Your task to perform on an android device: turn notification dots on Image 0: 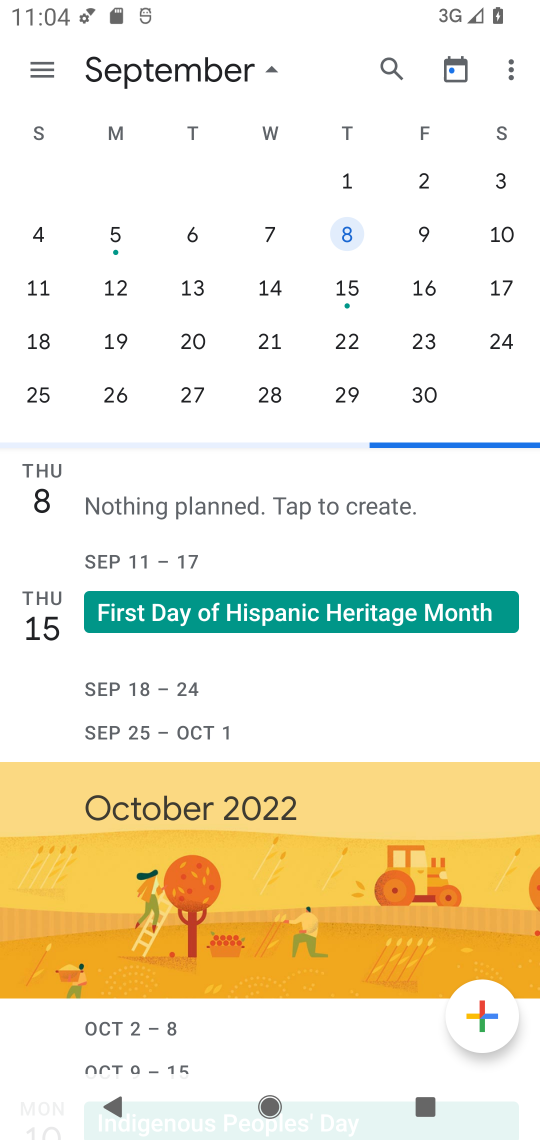
Step 0: press back button
Your task to perform on an android device: turn notification dots on Image 1: 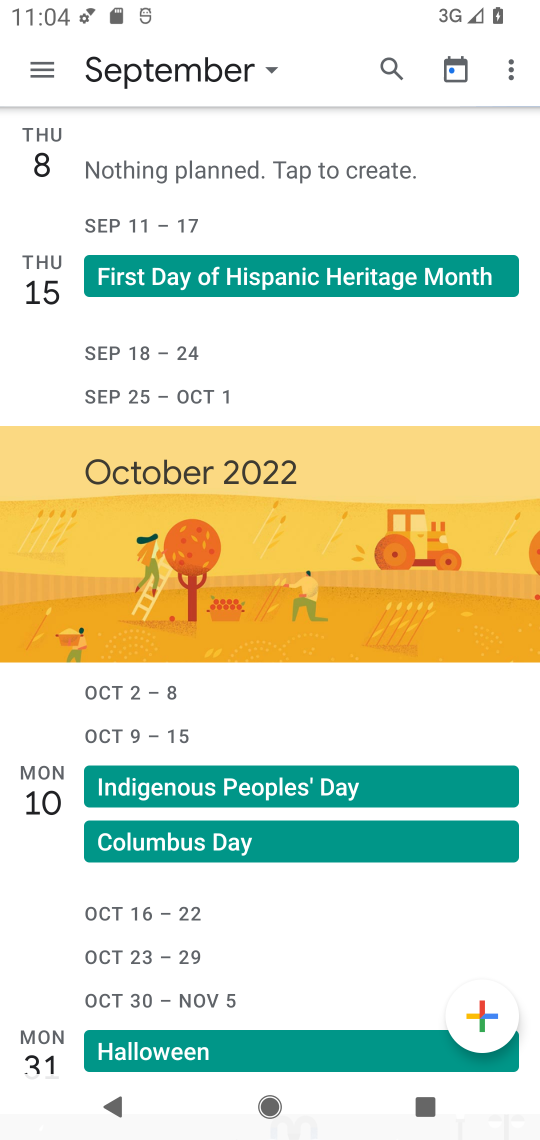
Step 1: press home button
Your task to perform on an android device: turn notification dots on Image 2: 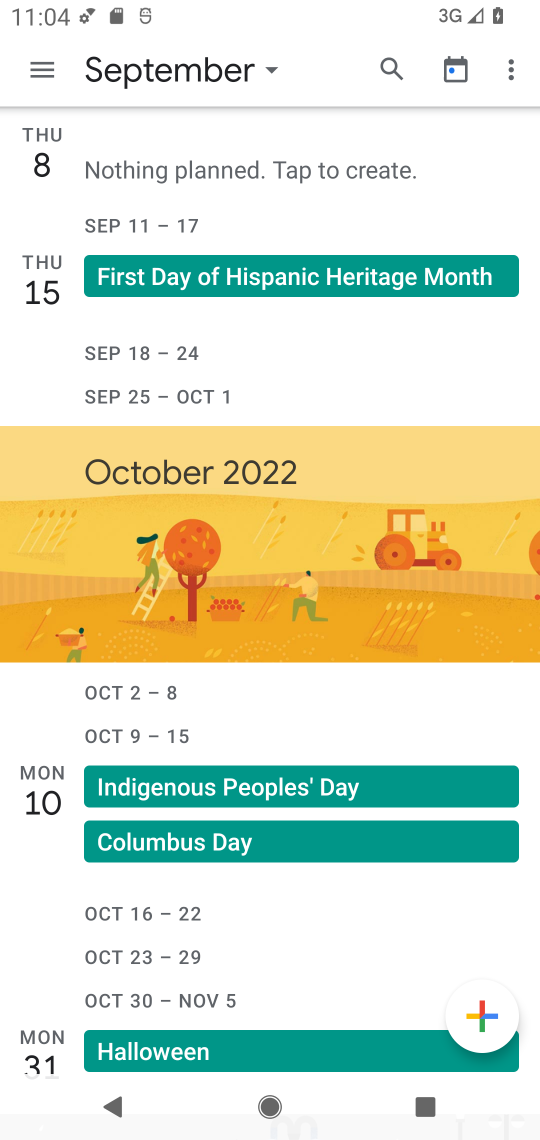
Step 2: press home button
Your task to perform on an android device: turn notification dots on Image 3: 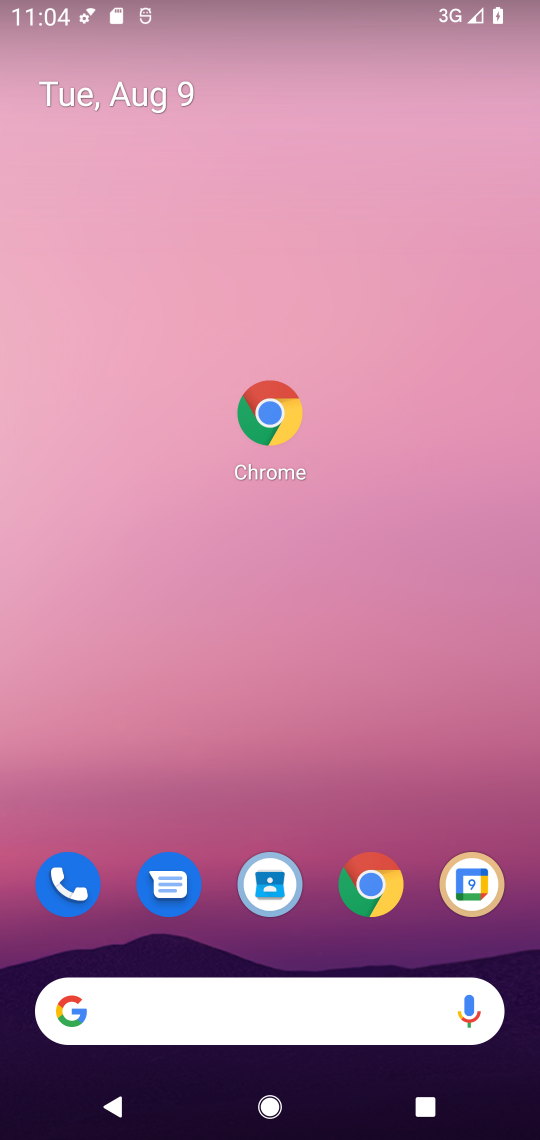
Step 3: drag from (209, 475) to (207, 374)
Your task to perform on an android device: turn notification dots on Image 4: 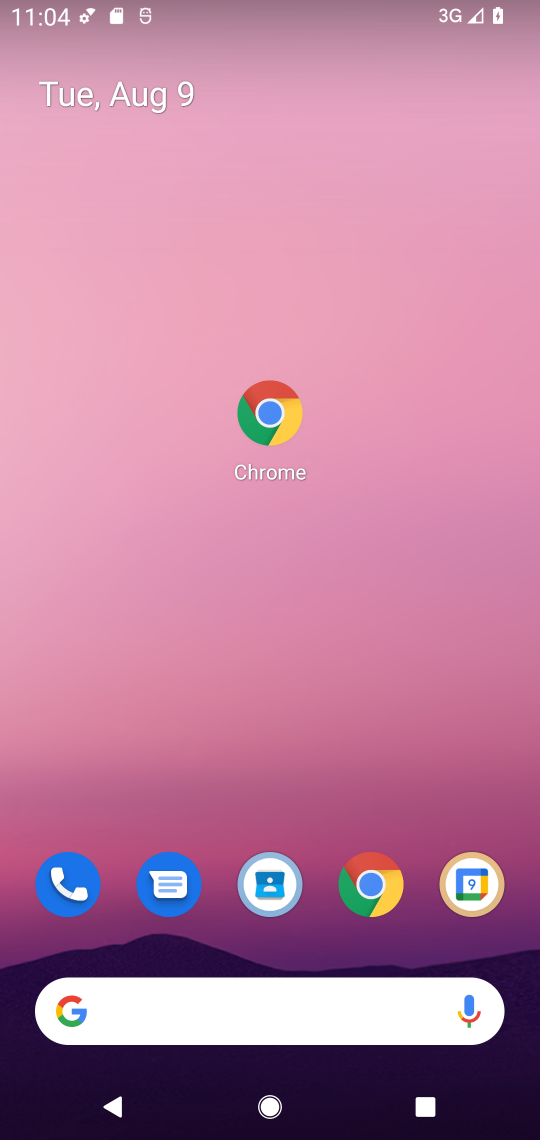
Step 4: click (264, 548)
Your task to perform on an android device: turn notification dots on Image 5: 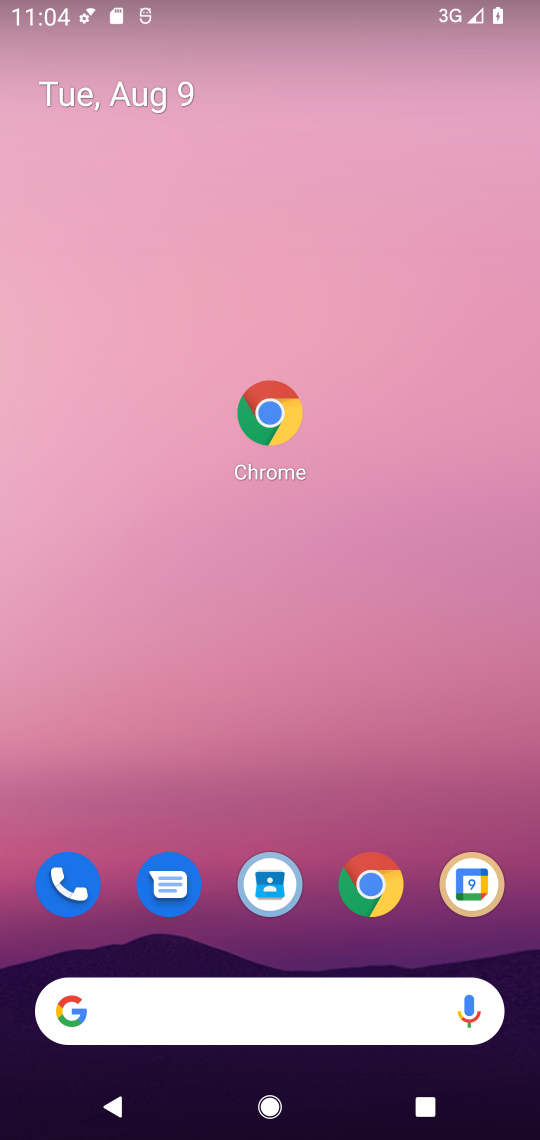
Step 5: drag from (296, 737) to (296, 332)
Your task to perform on an android device: turn notification dots on Image 6: 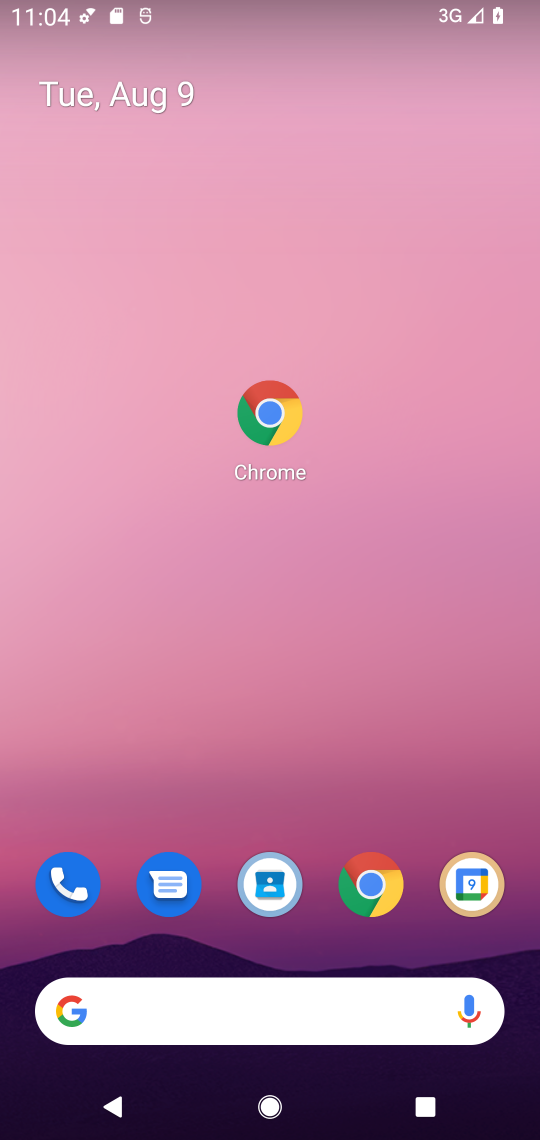
Step 6: click (288, 544)
Your task to perform on an android device: turn notification dots on Image 7: 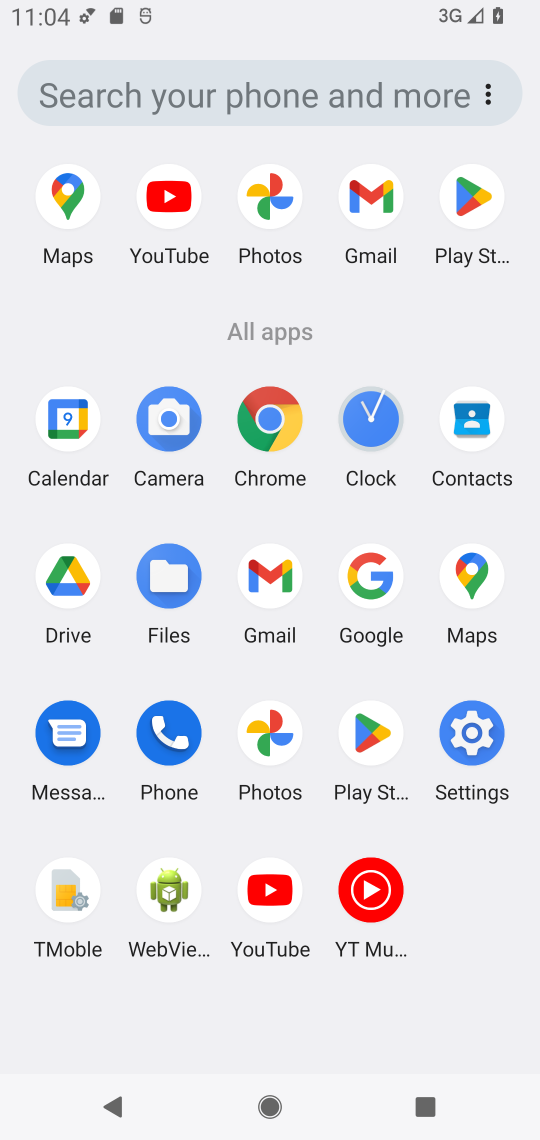
Step 7: drag from (350, 635) to (350, 571)
Your task to perform on an android device: turn notification dots on Image 8: 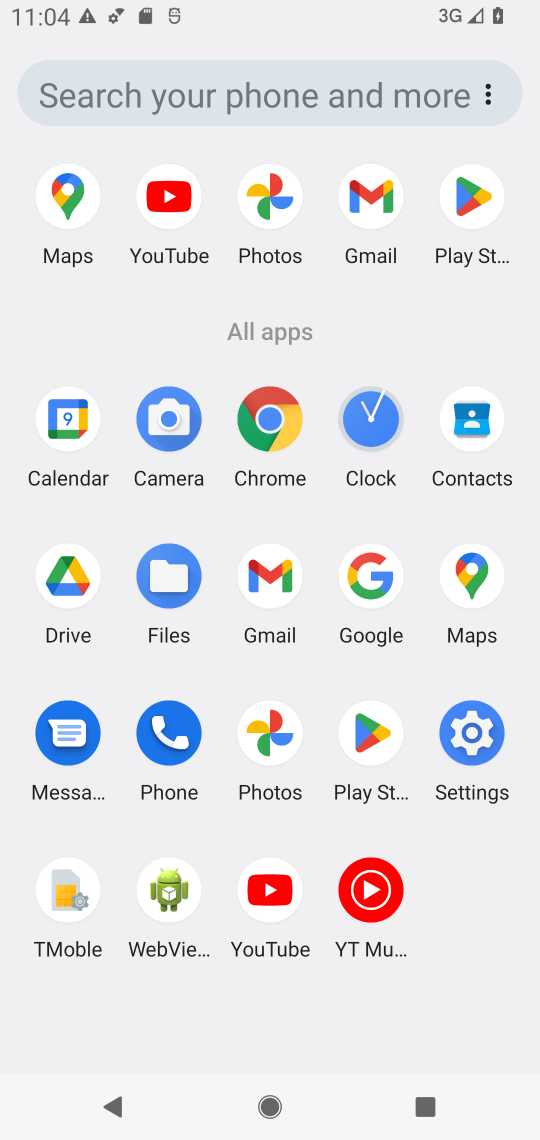
Step 8: click (461, 728)
Your task to perform on an android device: turn notification dots on Image 9: 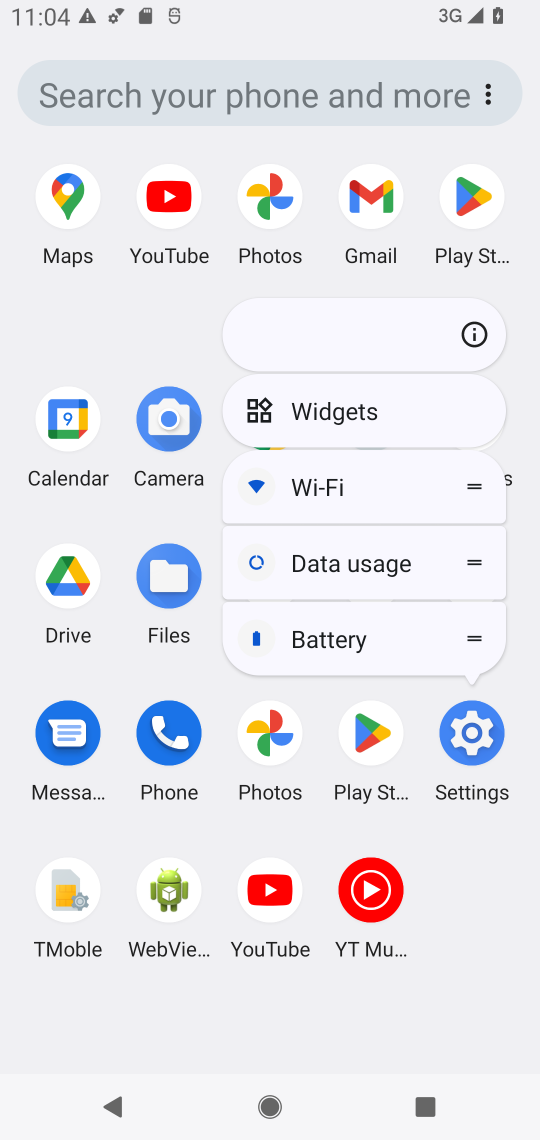
Step 9: click (486, 728)
Your task to perform on an android device: turn notification dots on Image 10: 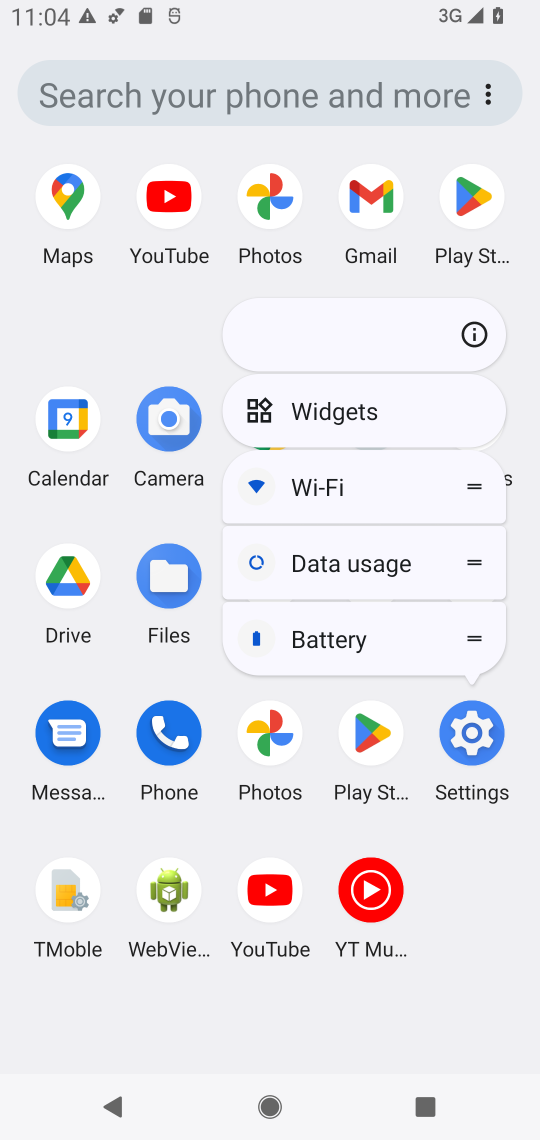
Step 10: click (486, 732)
Your task to perform on an android device: turn notification dots on Image 11: 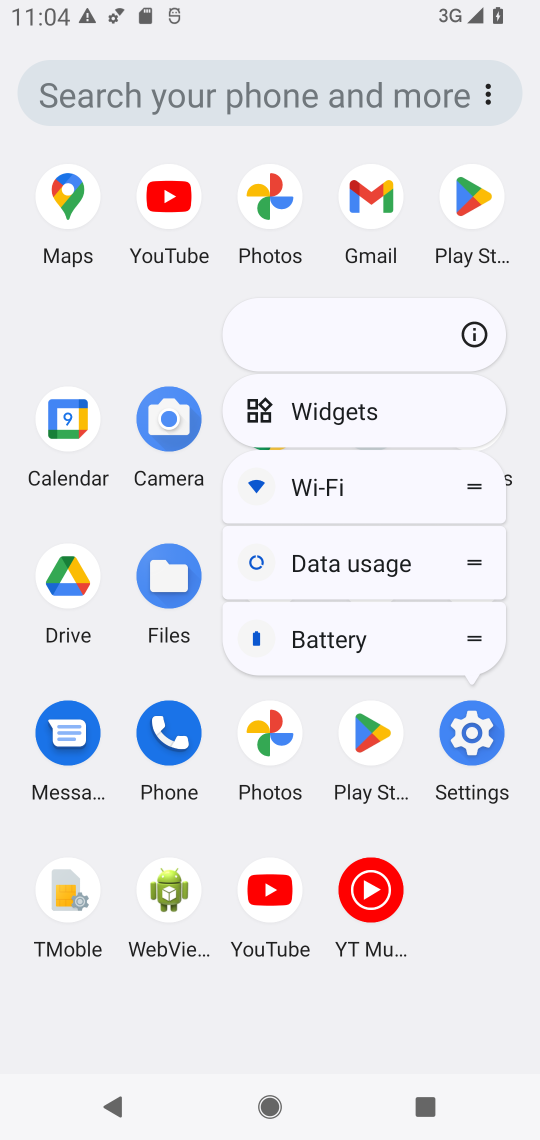
Step 11: click (490, 732)
Your task to perform on an android device: turn notification dots on Image 12: 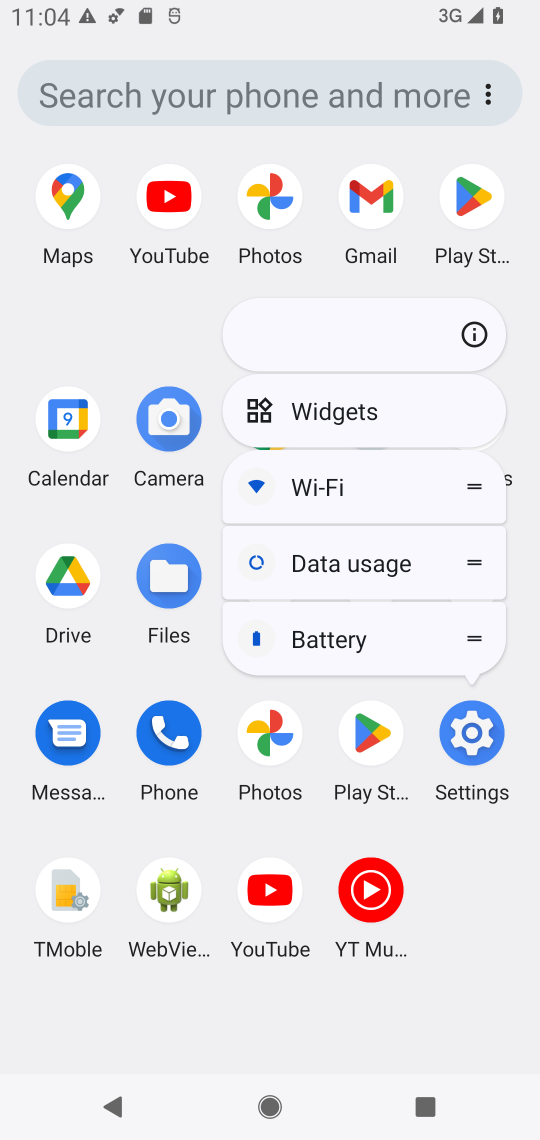
Step 12: click (459, 735)
Your task to perform on an android device: turn notification dots on Image 13: 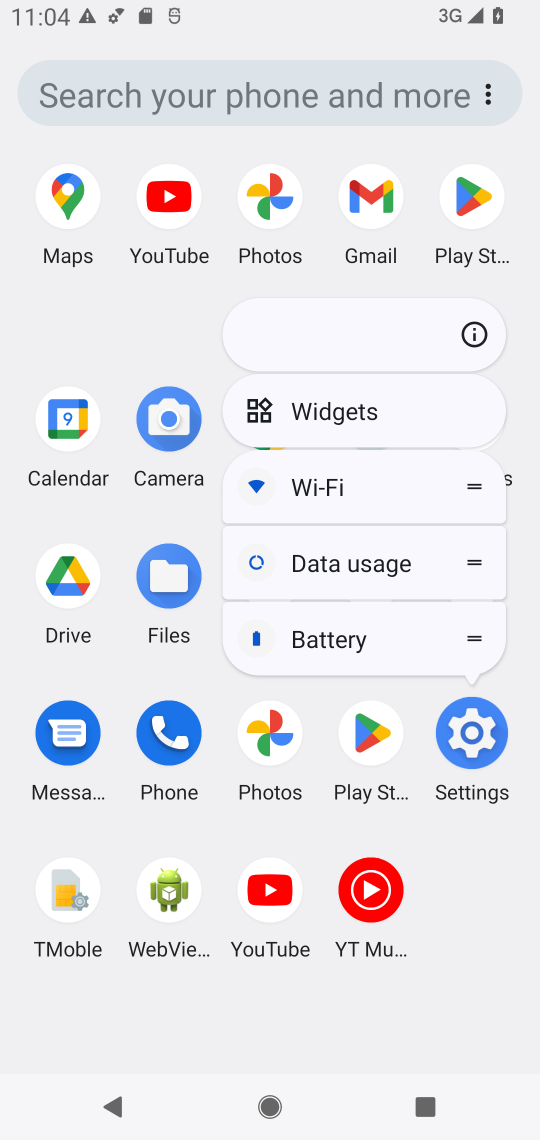
Step 13: click (474, 731)
Your task to perform on an android device: turn notification dots on Image 14: 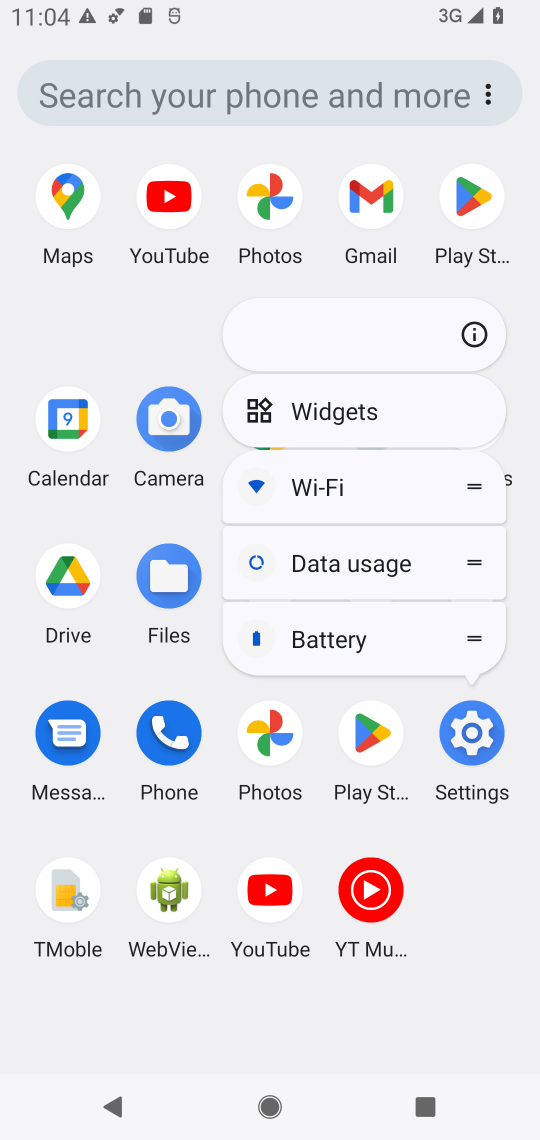
Step 14: click (471, 735)
Your task to perform on an android device: turn notification dots on Image 15: 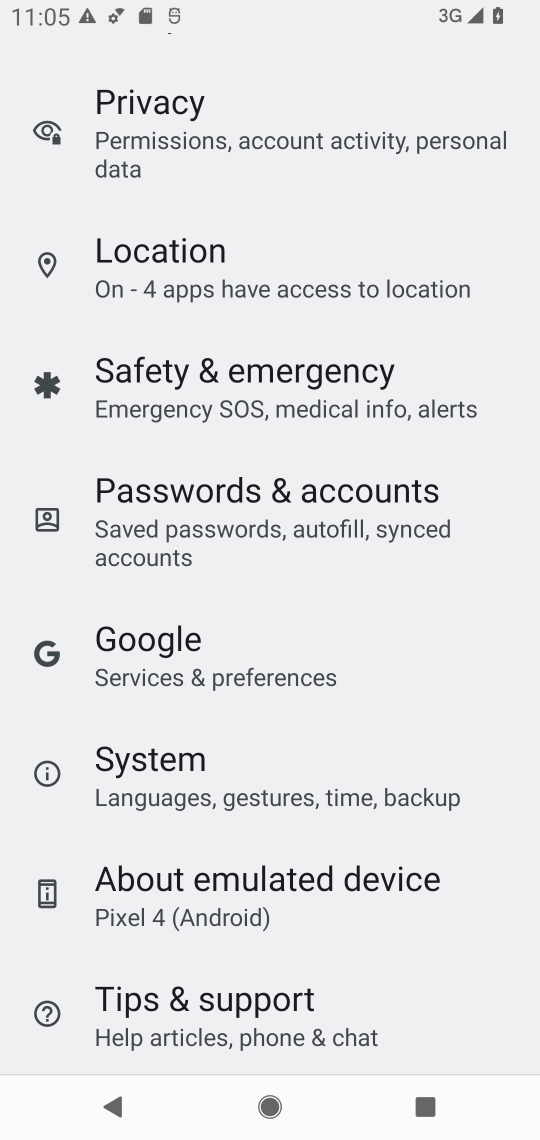
Step 15: drag from (260, 634) to (234, 473)
Your task to perform on an android device: turn notification dots on Image 16: 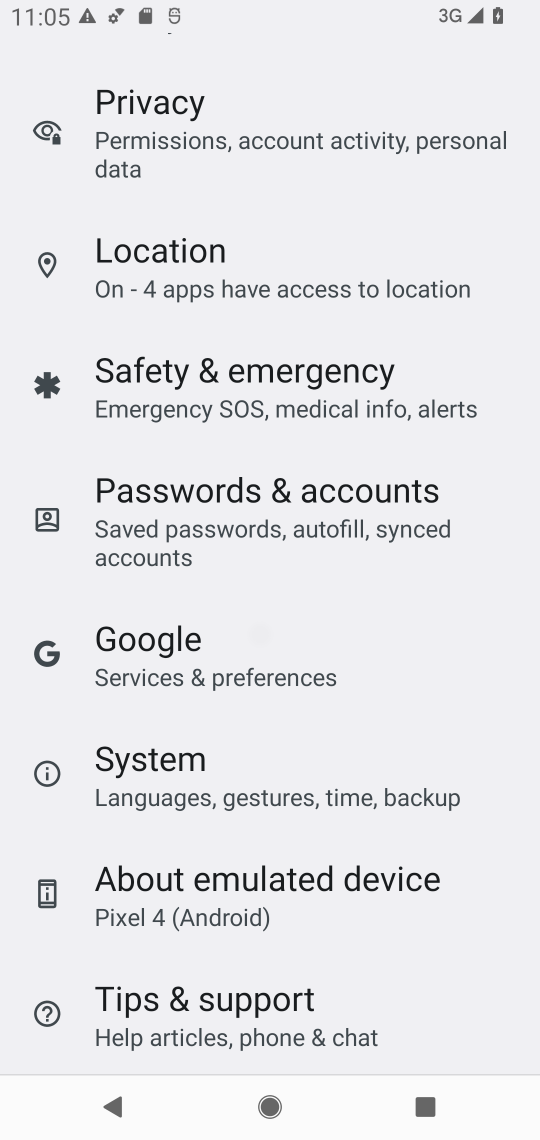
Step 16: drag from (310, 857) to (255, 322)
Your task to perform on an android device: turn notification dots on Image 17: 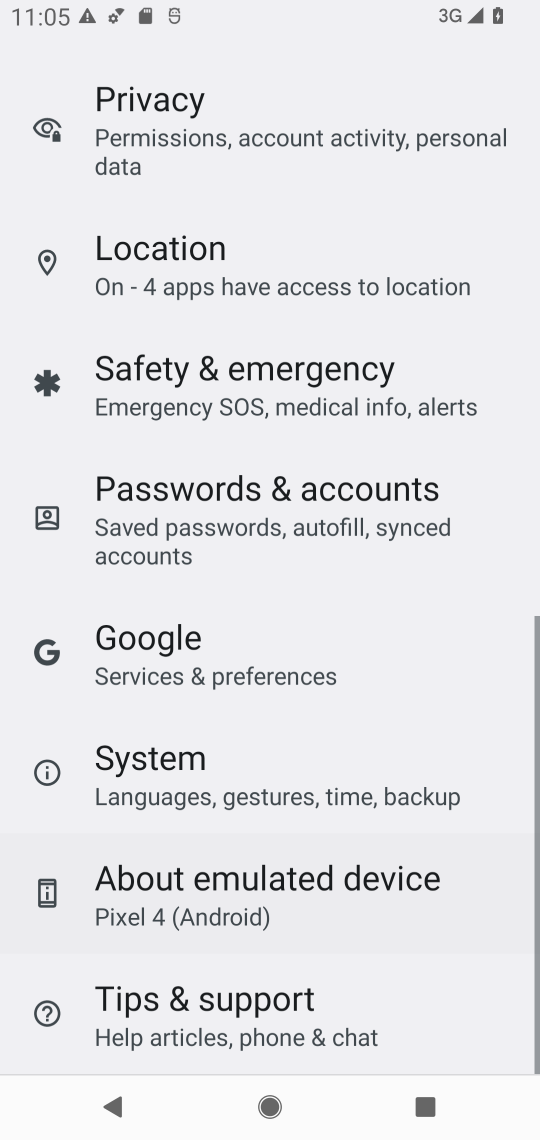
Step 17: drag from (228, 632) to (242, 387)
Your task to perform on an android device: turn notification dots on Image 18: 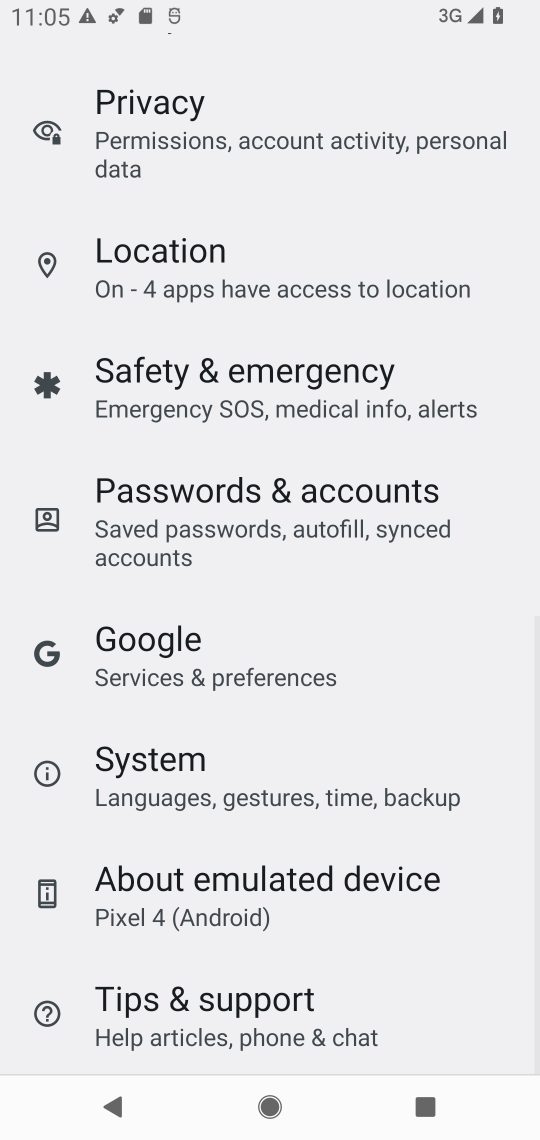
Step 18: drag from (301, 920) to (334, 380)
Your task to perform on an android device: turn notification dots on Image 19: 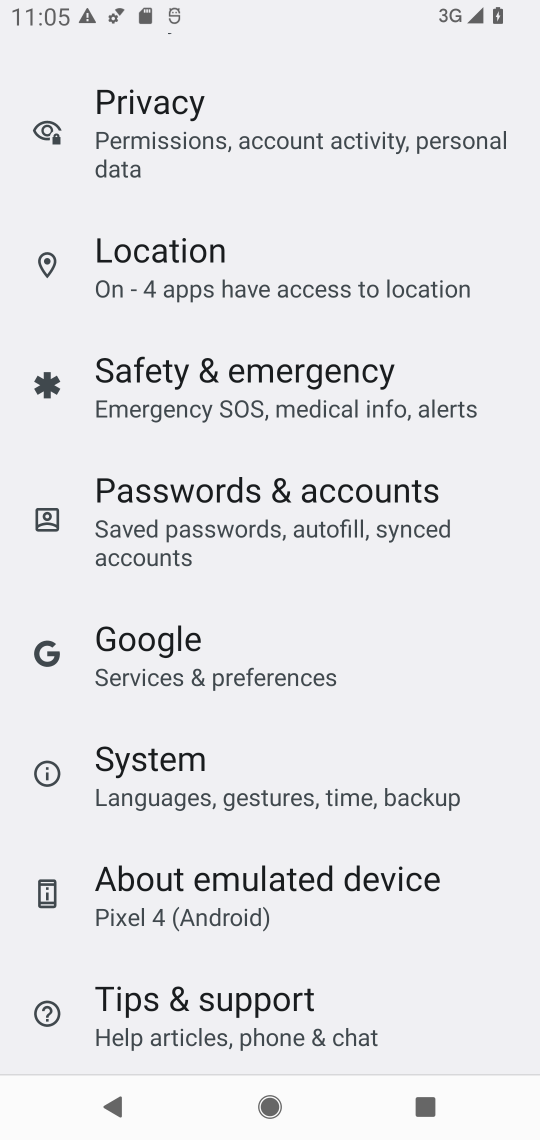
Step 19: drag from (189, 346) to (195, 862)
Your task to perform on an android device: turn notification dots on Image 20: 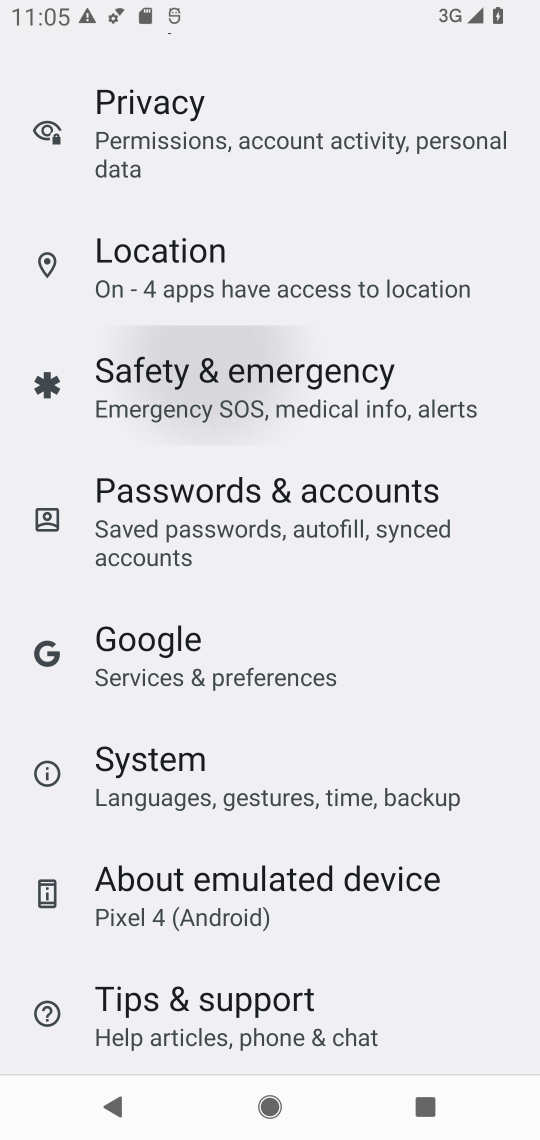
Step 20: drag from (251, 401) to (250, 780)
Your task to perform on an android device: turn notification dots on Image 21: 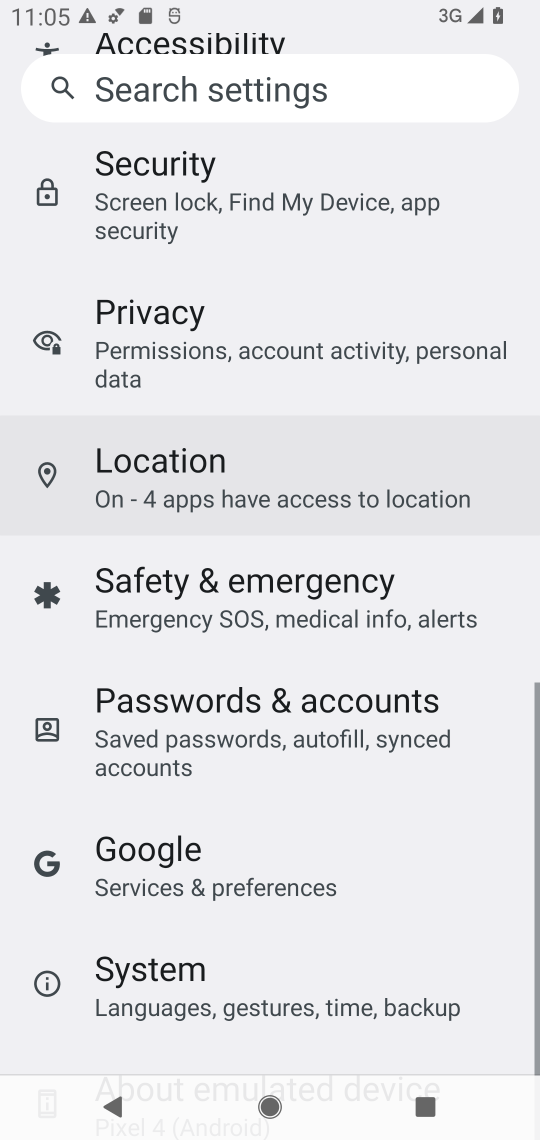
Step 21: drag from (224, 337) to (220, 770)
Your task to perform on an android device: turn notification dots on Image 22: 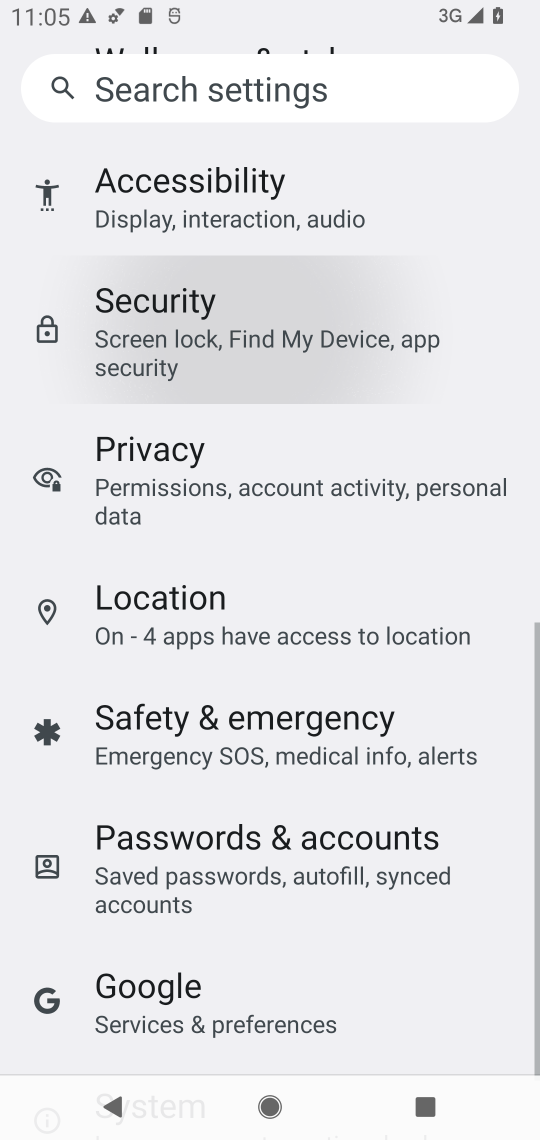
Step 22: drag from (234, 341) to (241, 783)
Your task to perform on an android device: turn notification dots on Image 23: 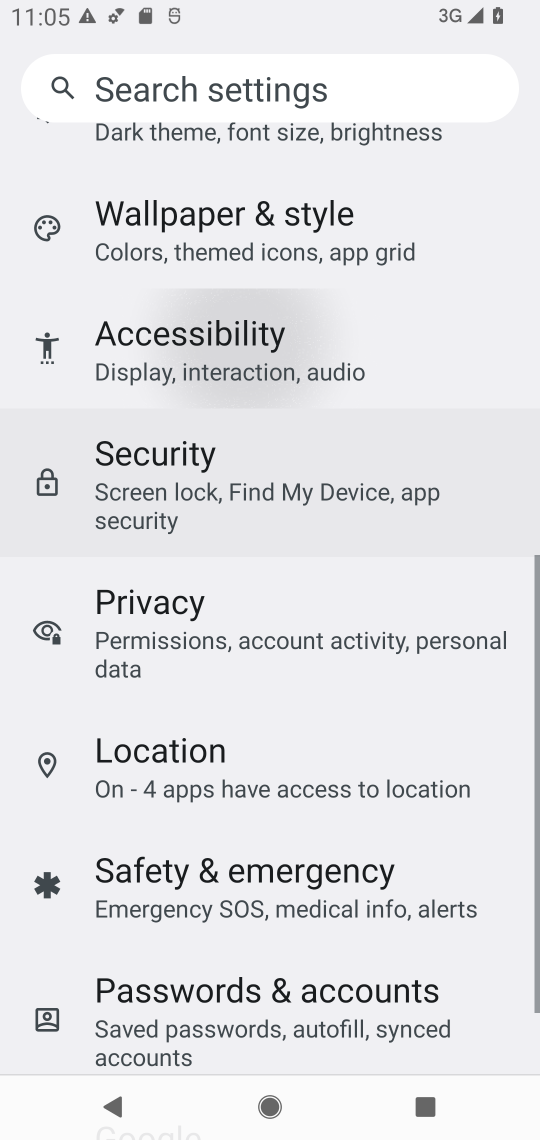
Step 23: drag from (177, 335) to (172, 704)
Your task to perform on an android device: turn notification dots on Image 24: 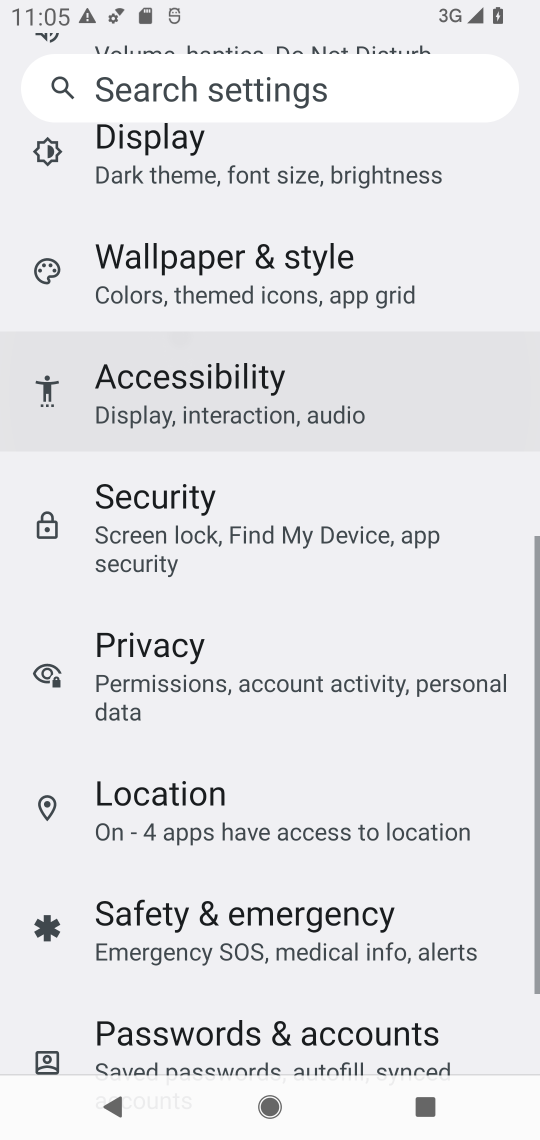
Step 24: drag from (149, 418) to (168, 828)
Your task to perform on an android device: turn notification dots on Image 25: 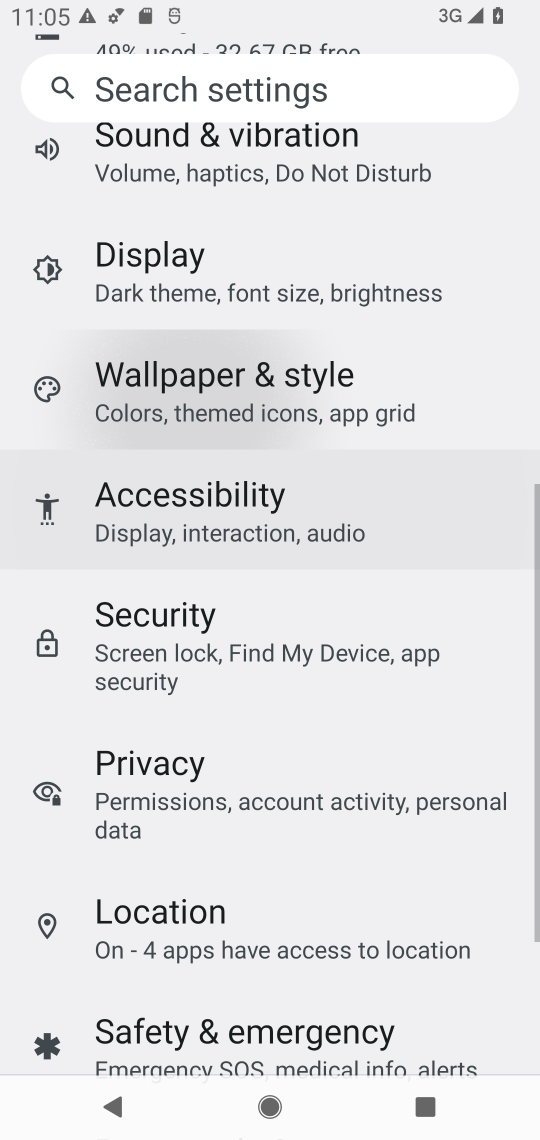
Step 25: drag from (188, 677) to (213, 873)
Your task to perform on an android device: turn notification dots on Image 26: 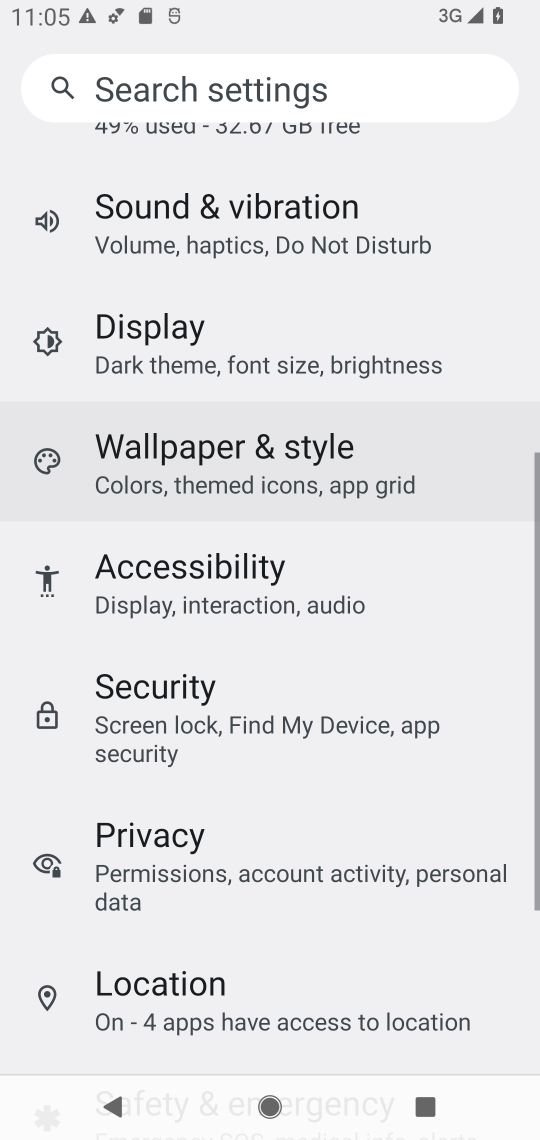
Step 26: drag from (215, 508) to (260, 824)
Your task to perform on an android device: turn notification dots on Image 27: 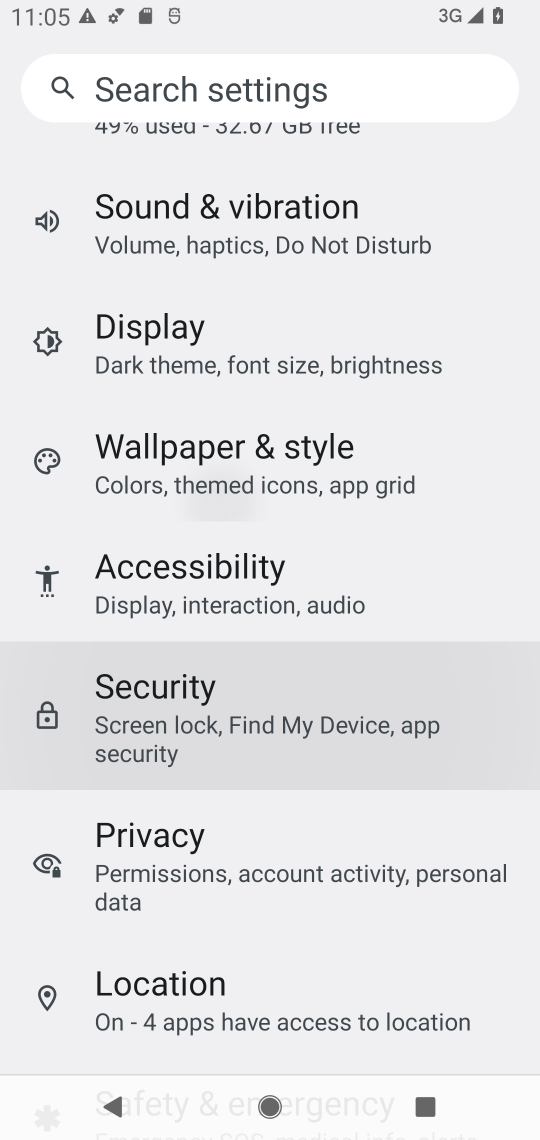
Step 27: drag from (356, 374) to (224, 984)
Your task to perform on an android device: turn notification dots on Image 28: 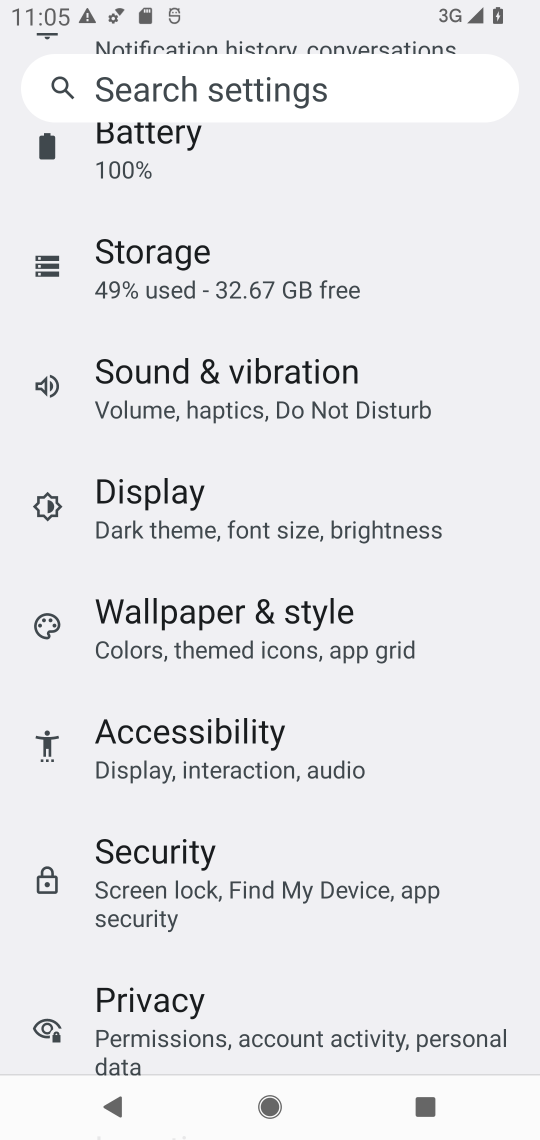
Step 28: drag from (227, 277) to (237, 699)
Your task to perform on an android device: turn notification dots on Image 29: 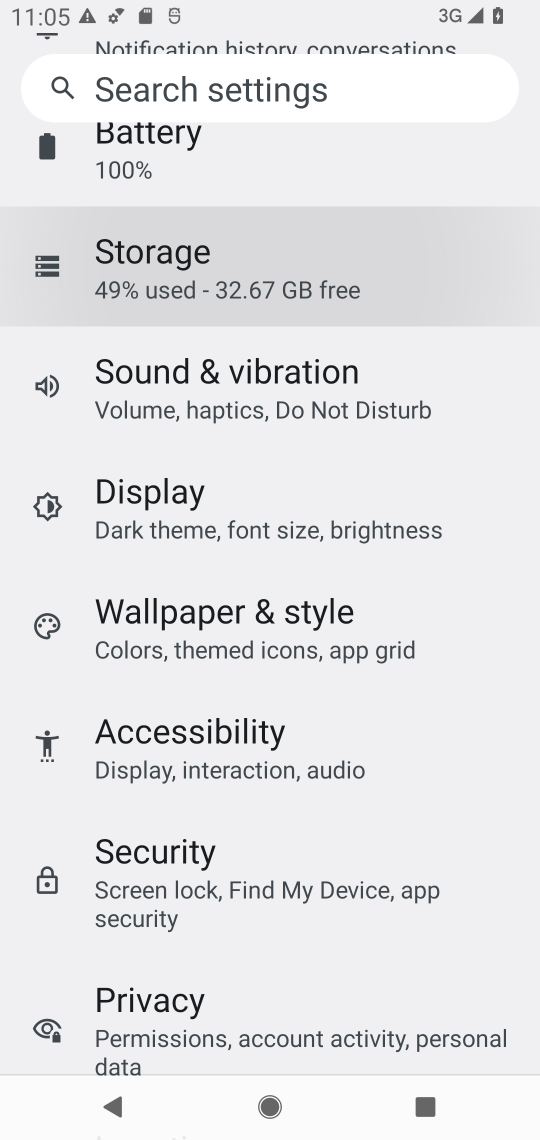
Step 29: drag from (181, 382) to (245, 830)
Your task to perform on an android device: turn notification dots on Image 30: 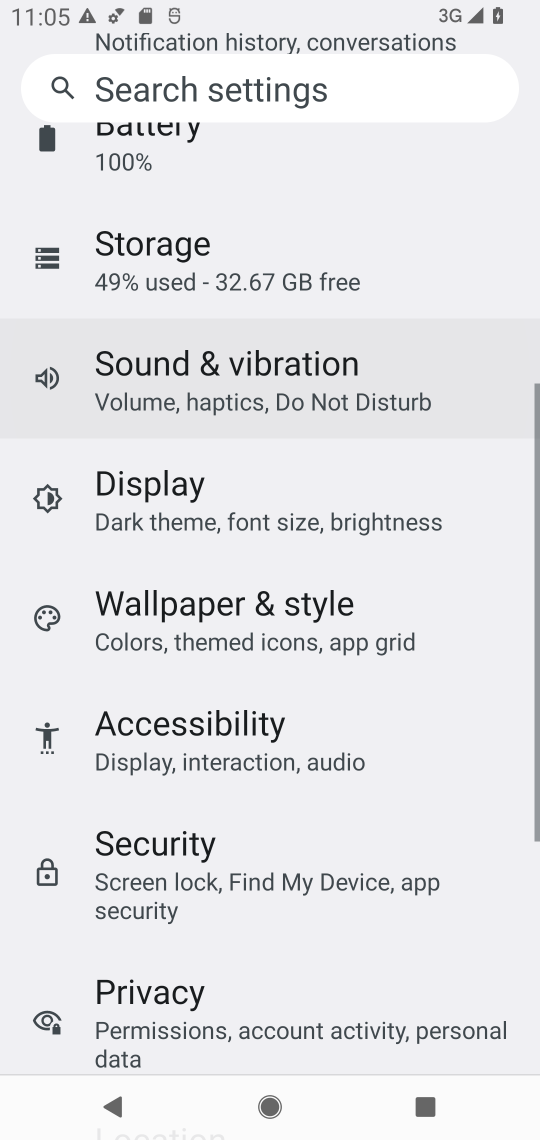
Step 30: drag from (197, 270) to (234, 803)
Your task to perform on an android device: turn notification dots on Image 31: 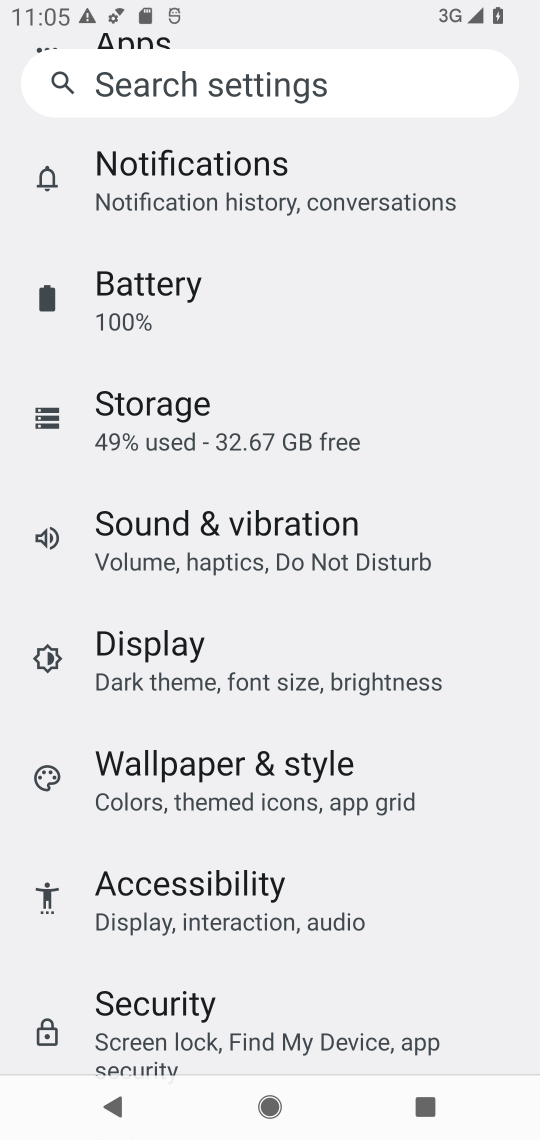
Step 31: click (164, 213)
Your task to perform on an android device: turn notification dots on Image 32: 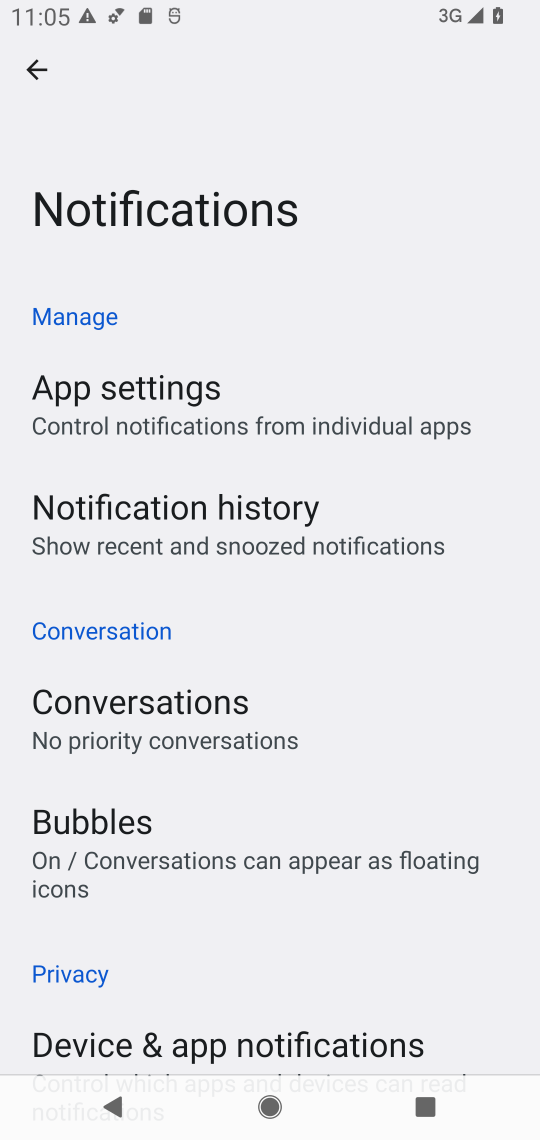
Step 32: task complete